Your task to perform on an android device: turn off smart reply in the gmail app Image 0: 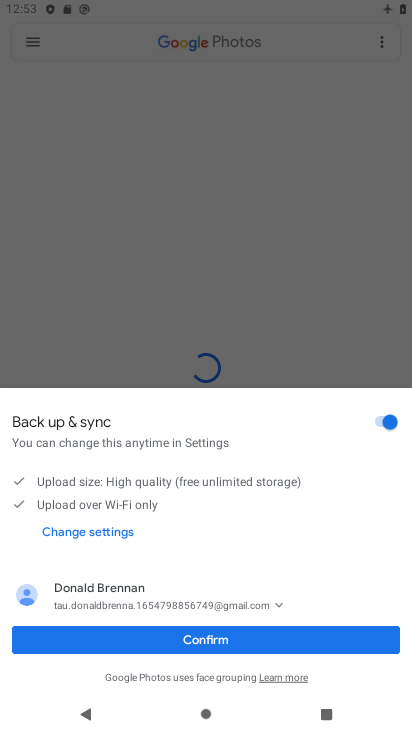
Step 0: press home button
Your task to perform on an android device: turn off smart reply in the gmail app Image 1: 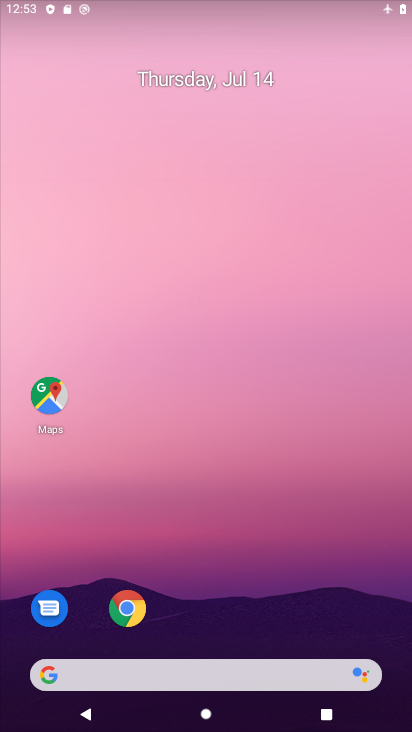
Step 1: drag from (218, 646) to (211, 165)
Your task to perform on an android device: turn off smart reply in the gmail app Image 2: 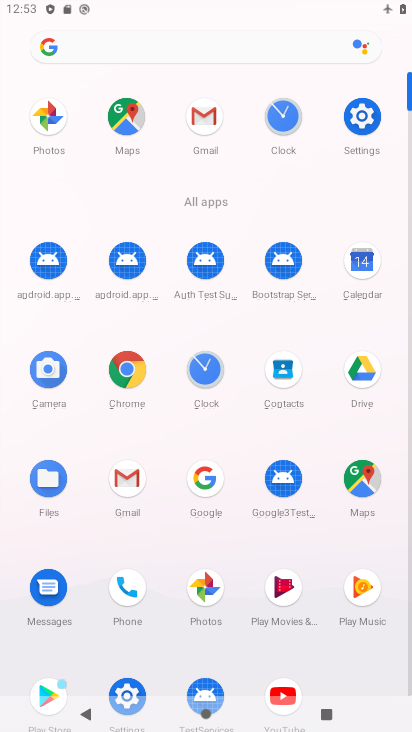
Step 2: click (211, 127)
Your task to perform on an android device: turn off smart reply in the gmail app Image 3: 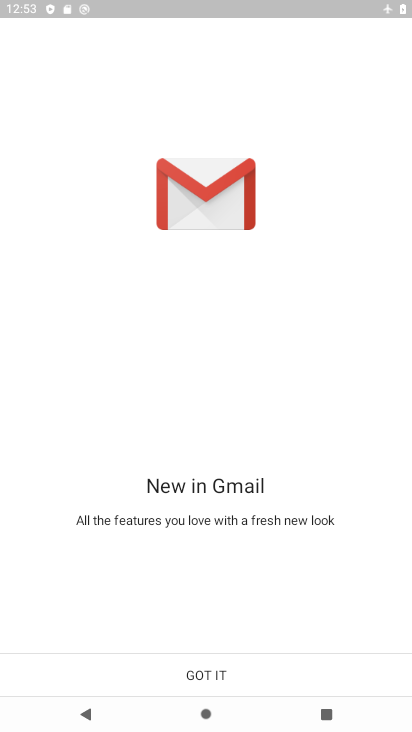
Step 3: click (204, 671)
Your task to perform on an android device: turn off smart reply in the gmail app Image 4: 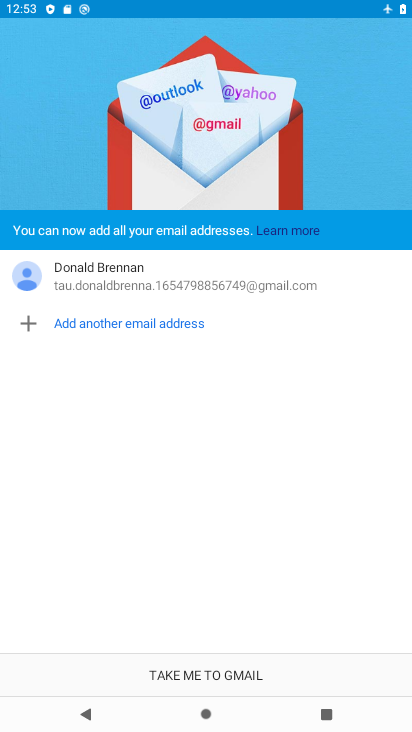
Step 4: click (203, 672)
Your task to perform on an android device: turn off smart reply in the gmail app Image 5: 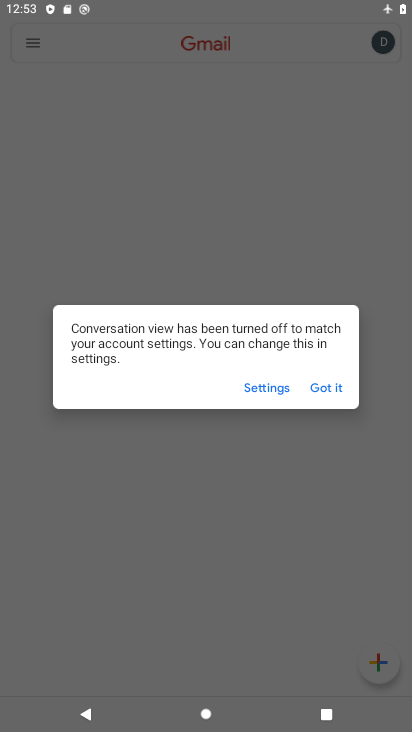
Step 5: click (333, 390)
Your task to perform on an android device: turn off smart reply in the gmail app Image 6: 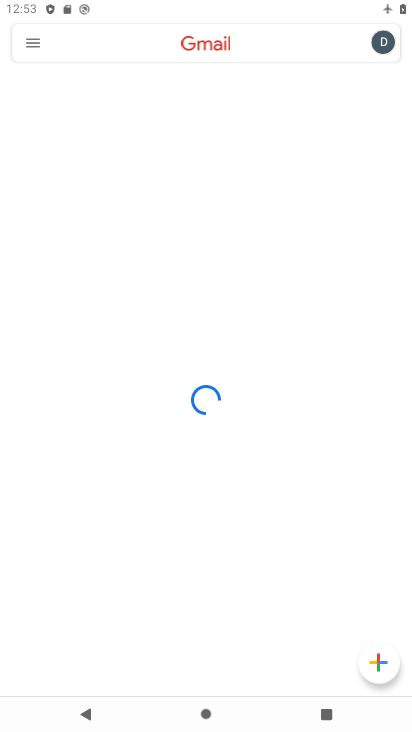
Step 6: click (28, 41)
Your task to perform on an android device: turn off smart reply in the gmail app Image 7: 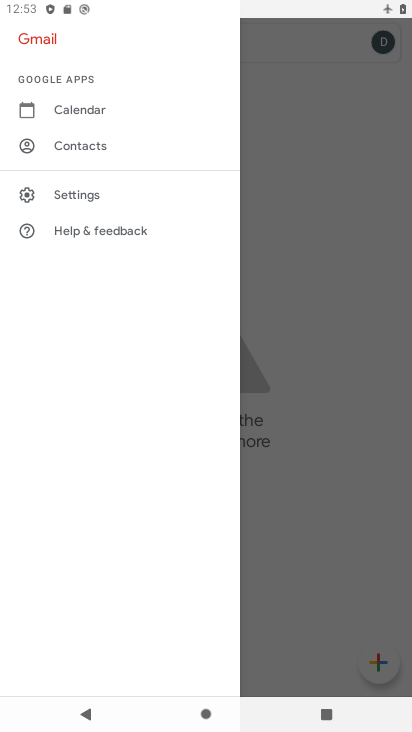
Step 7: click (66, 201)
Your task to perform on an android device: turn off smart reply in the gmail app Image 8: 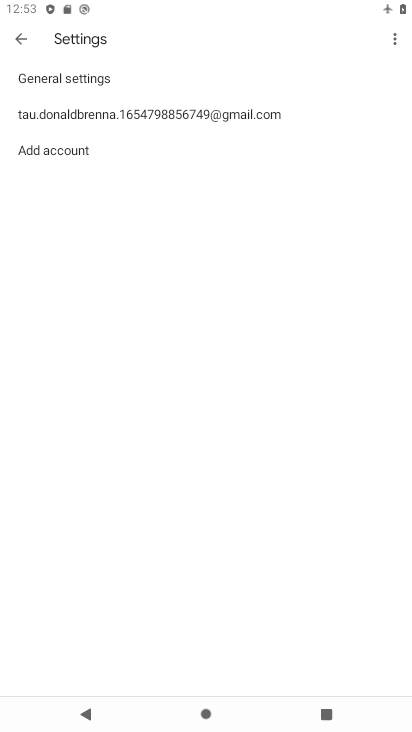
Step 8: click (85, 112)
Your task to perform on an android device: turn off smart reply in the gmail app Image 9: 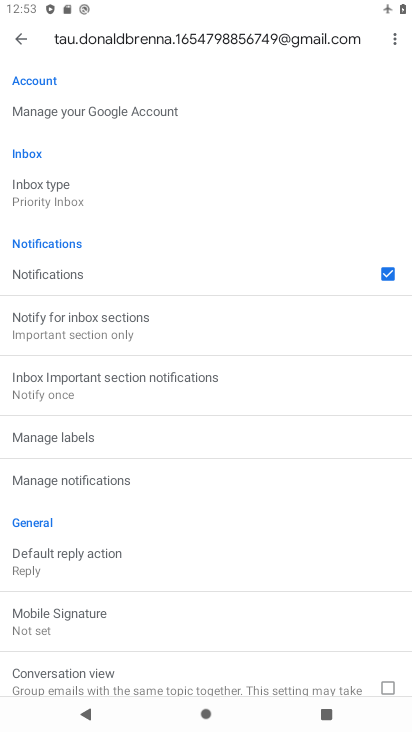
Step 9: drag from (111, 608) to (104, 186)
Your task to perform on an android device: turn off smart reply in the gmail app Image 10: 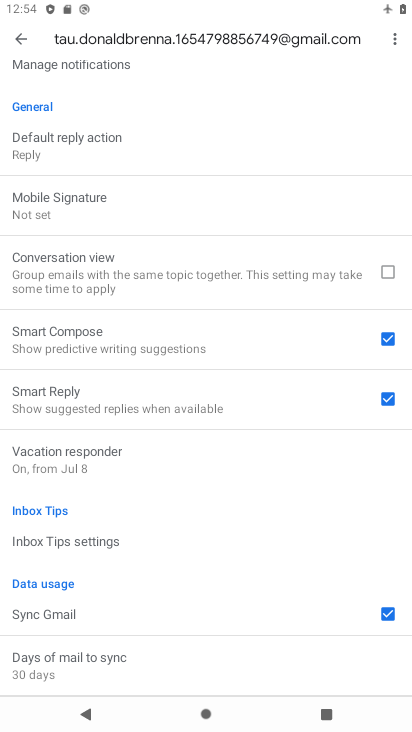
Step 10: drag from (105, 649) to (105, 262)
Your task to perform on an android device: turn off smart reply in the gmail app Image 11: 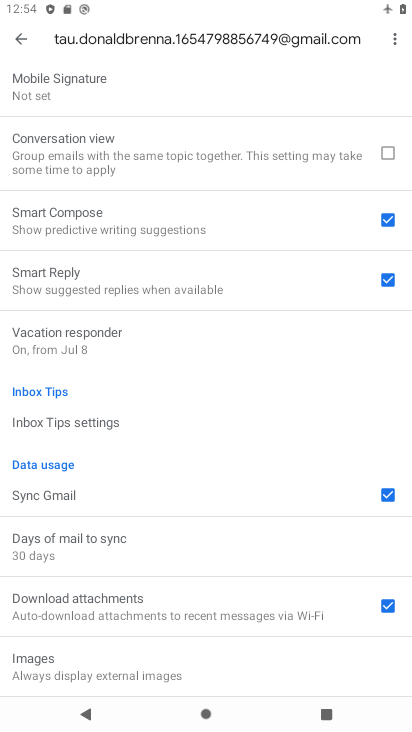
Step 11: click (394, 281)
Your task to perform on an android device: turn off smart reply in the gmail app Image 12: 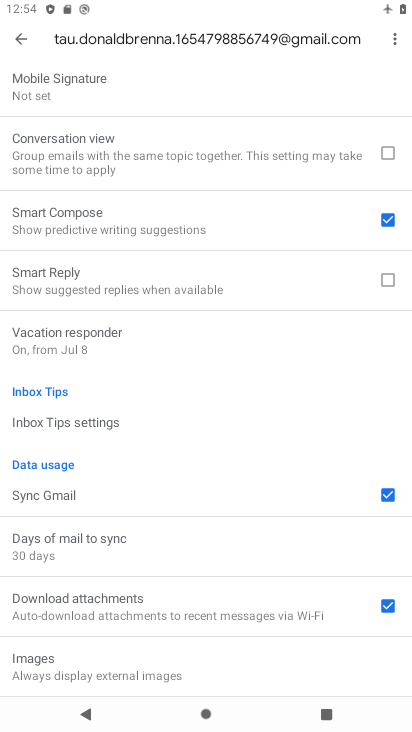
Step 12: task complete